Your task to perform on an android device: Go to Google Image 0: 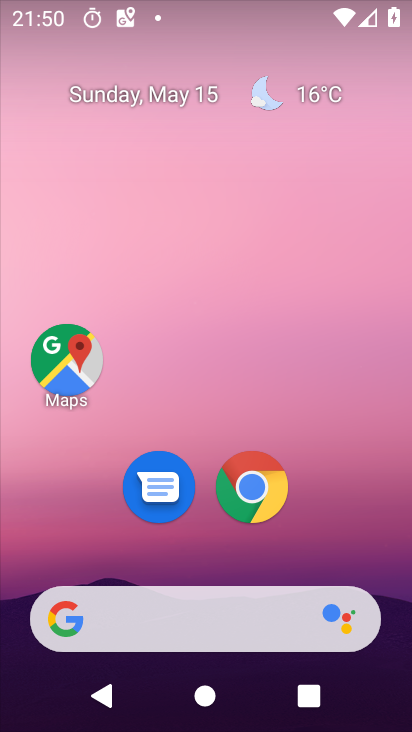
Step 0: drag from (395, 659) to (384, 360)
Your task to perform on an android device: Go to Google Image 1: 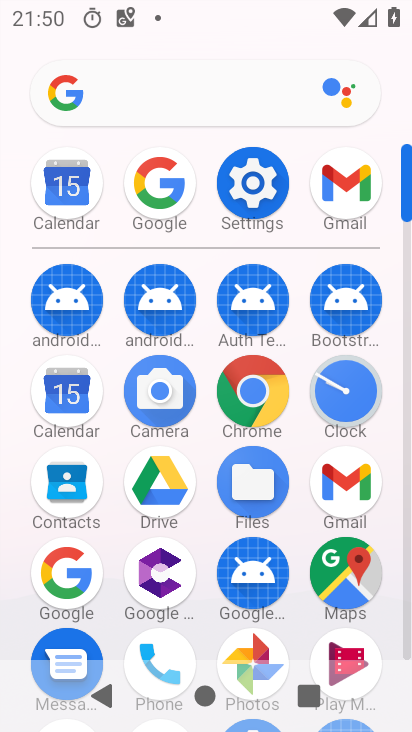
Step 1: click (63, 578)
Your task to perform on an android device: Go to Google Image 2: 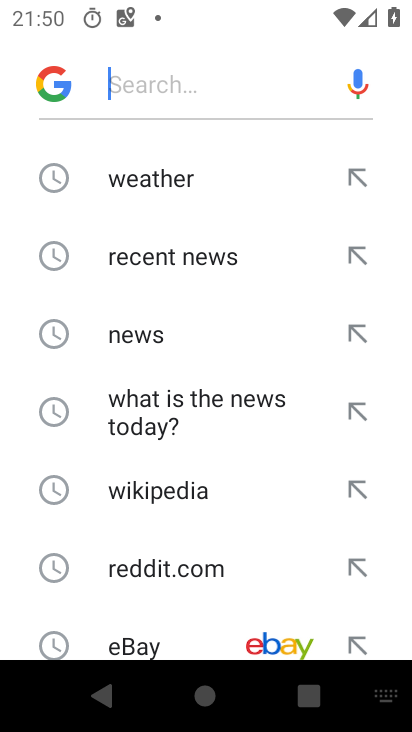
Step 2: press back button
Your task to perform on an android device: Go to Google Image 3: 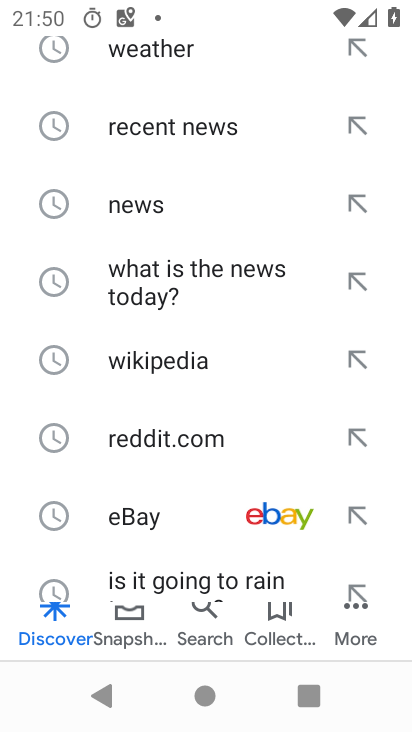
Step 3: press back button
Your task to perform on an android device: Go to Google Image 4: 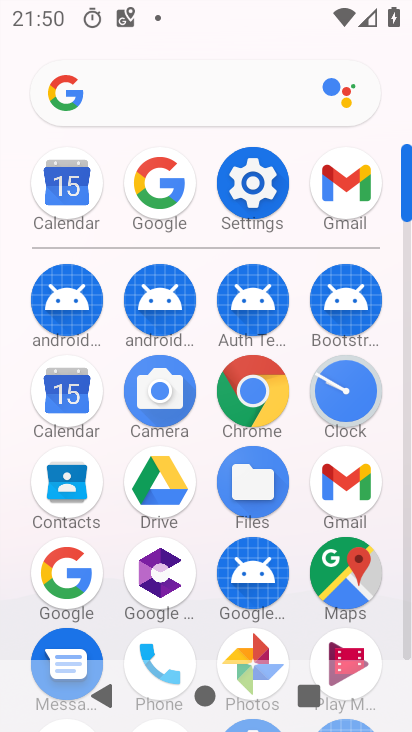
Step 4: click (55, 569)
Your task to perform on an android device: Go to Google Image 5: 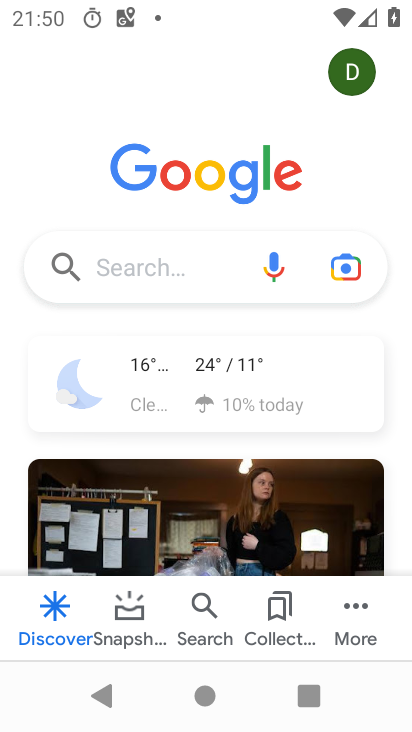
Step 5: task complete